Your task to perform on an android device: Open calendar and show me the second week of next month Image 0: 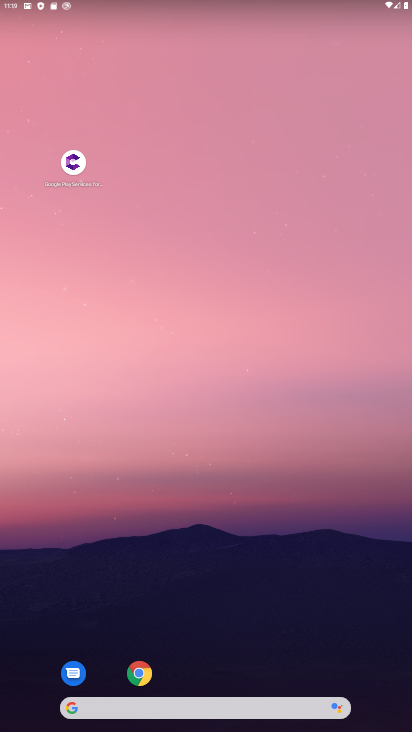
Step 0: drag from (222, 596) to (173, 21)
Your task to perform on an android device: Open calendar and show me the second week of next month Image 1: 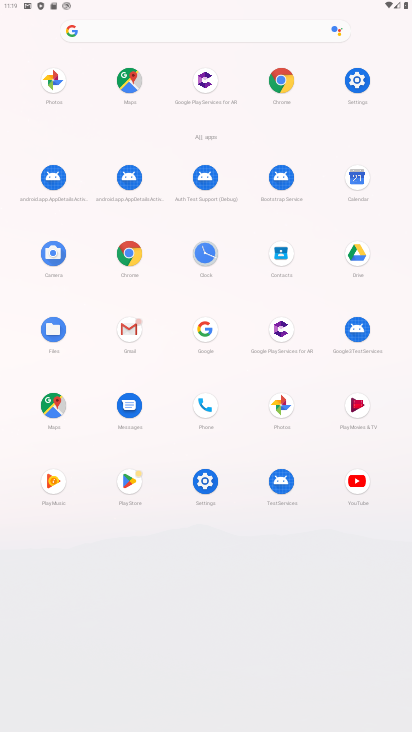
Step 1: click (358, 173)
Your task to perform on an android device: Open calendar and show me the second week of next month Image 2: 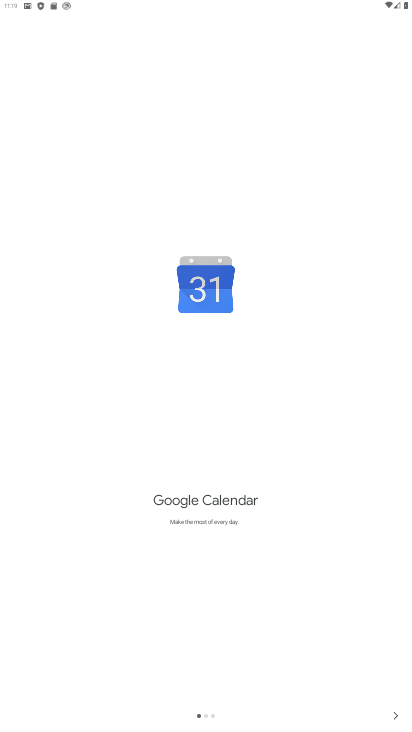
Step 2: click (391, 711)
Your task to perform on an android device: Open calendar and show me the second week of next month Image 3: 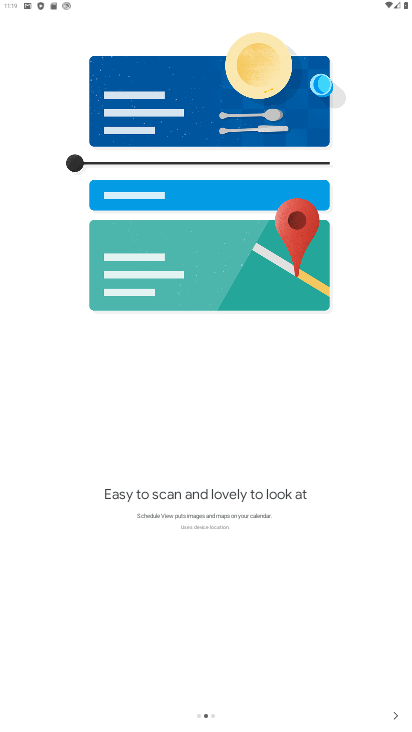
Step 3: click (391, 711)
Your task to perform on an android device: Open calendar and show me the second week of next month Image 4: 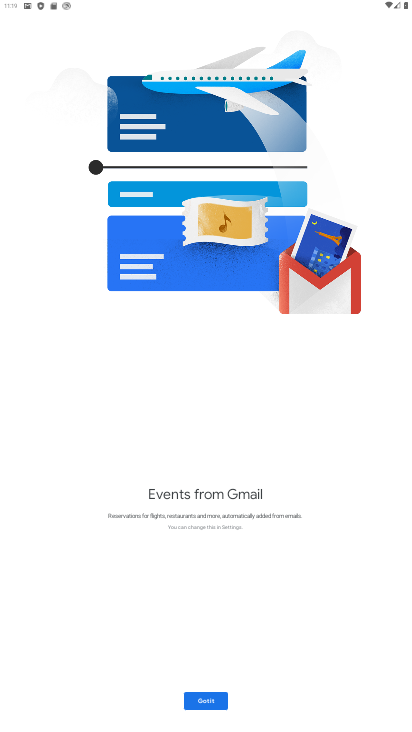
Step 4: click (209, 699)
Your task to perform on an android device: Open calendar and show me the second week of next month Image 5: 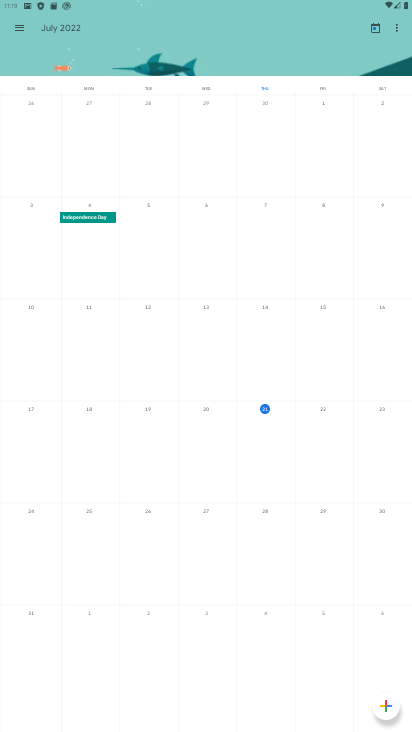
Step 5: click (21, 26)
Your task to perform on an android device: Open calendar and show me the second week of next month Image 6: 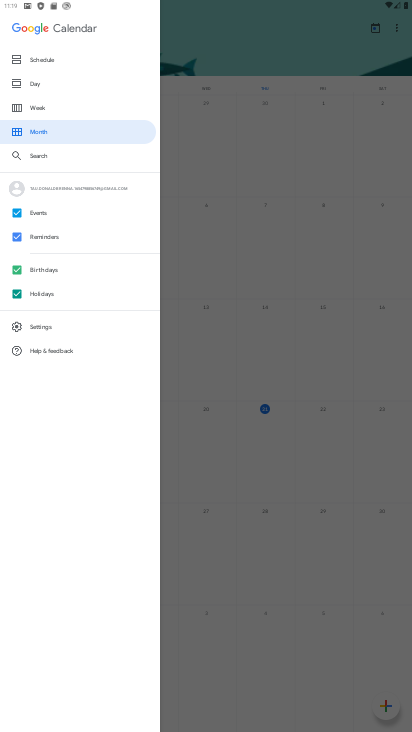
Step 6: click (42, 103)
Your task to perform on an android device: Open calendar and show me the second week of next month Image 7: 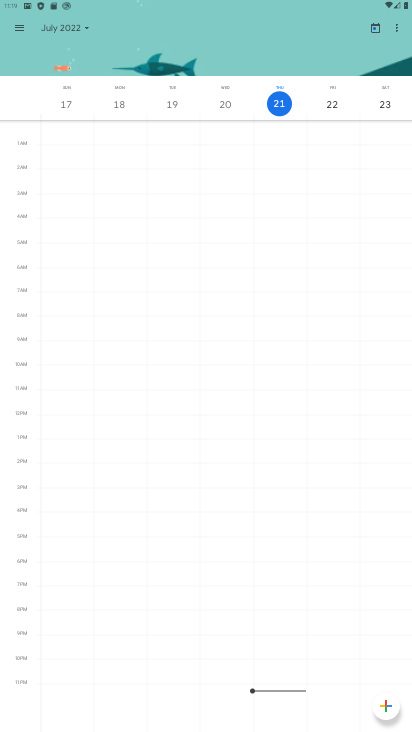
Step 7: click (78, 30)
Your task to perform on an android device: Open calendar and show me the second week of next month Image 8: 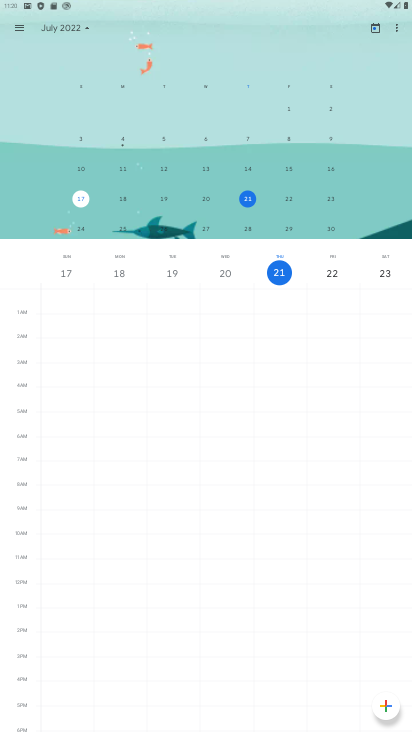
Step 8: drag from (342, 168) to (6, 109)
Your task to perform on an android device: Open calendar and show me the second week of next month Image 9: 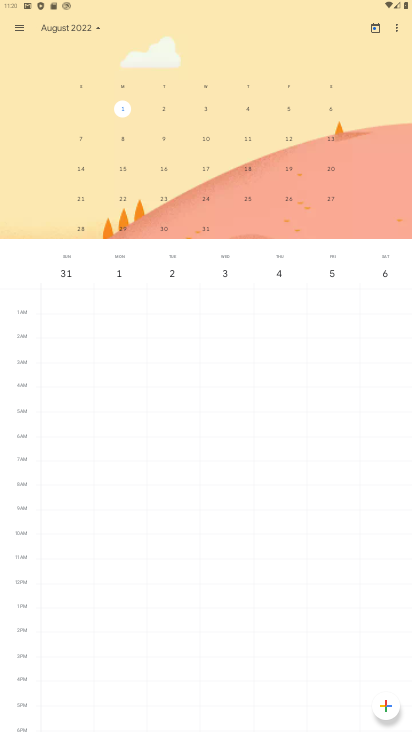
Step 9: click (166, 141)
Your task to perform on an android device: Open calendar and show me the second week of next month Image 10: 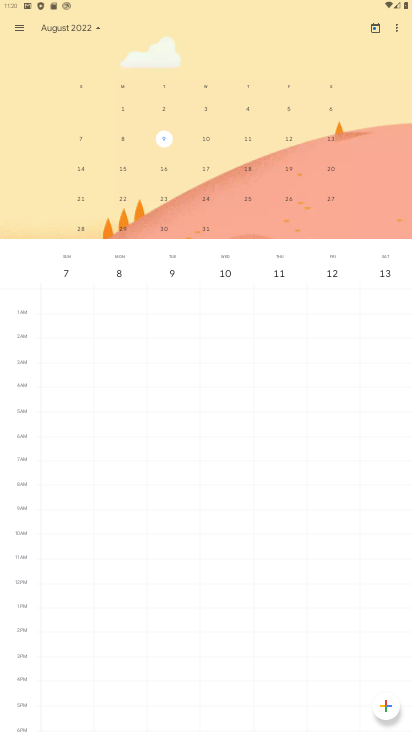
Step 10: task complete